Your task to perform on an android device: change the clock style Image 0: 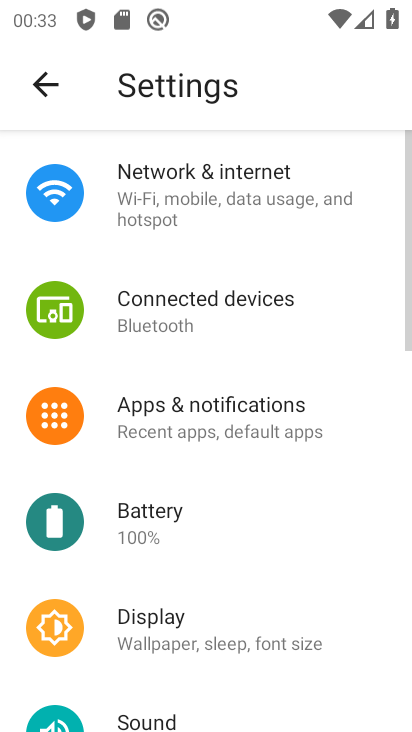
Step 0: press home button
Your task to perform on an android device: change the clock style Image 1: 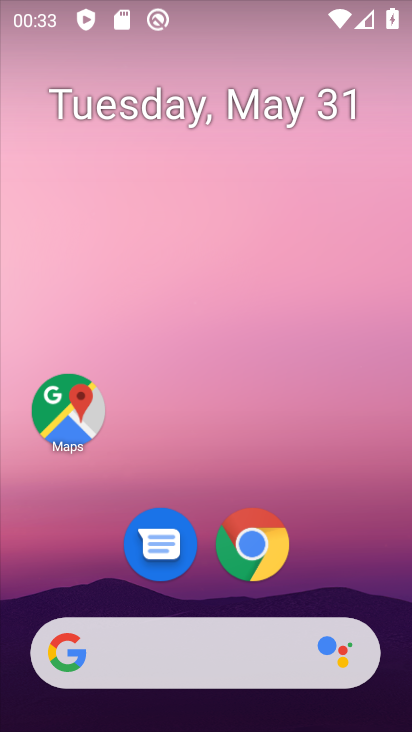
Step 1: drag from (50, 596) to (174, 104)
Your task to perform on an android device: change the clock style Image 2: 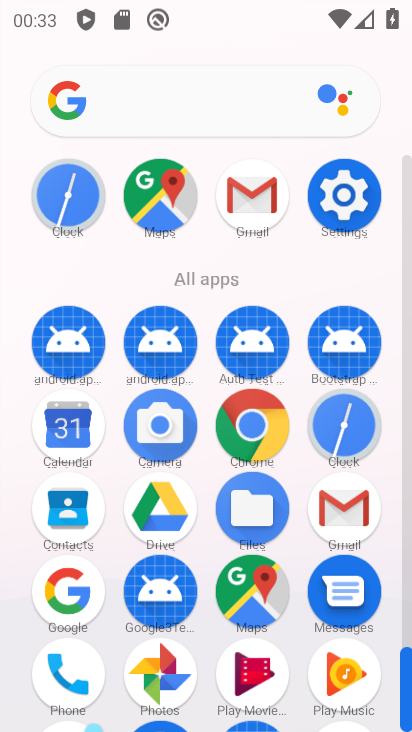
Step 2: click (349, 436)
Your task to perform on an android device: change the clock style Image 3: 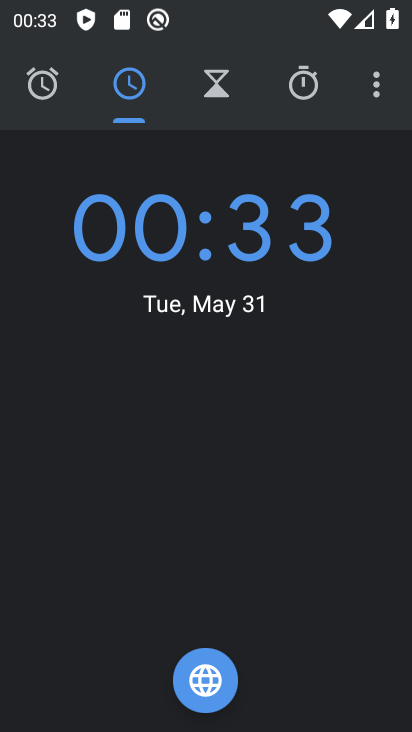
Step 3: click (384, 76)
Your task to perform on an android device: change the clock style Image 4: 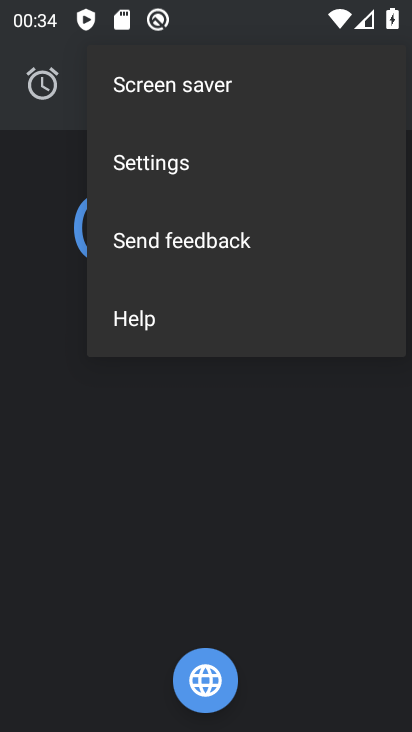
Step 4: click (356, 165)
Your task to perform on an android device: change the clock style Image 5: 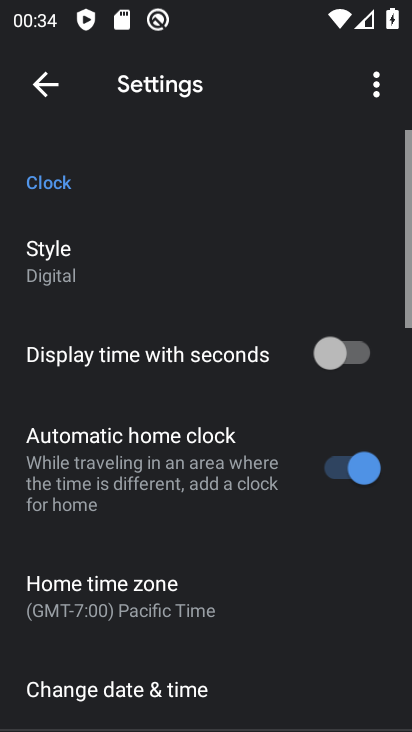
Step 5: click (278, 244)
Your task to perform on an android device: change the clock style Image 6: 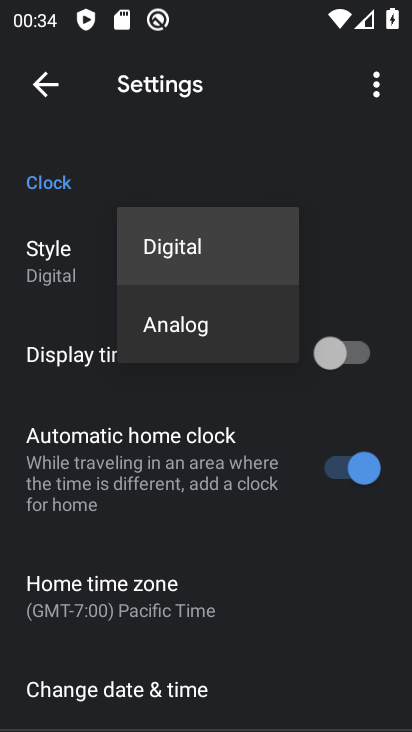
Step 6: click (213, 307)
Your task to perform on an android device: change the clock style Image 7: 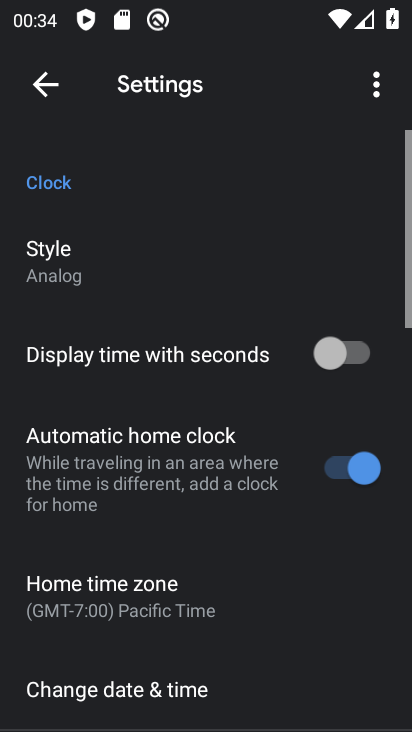
Step 7: task complete